Your task to perform on an android device: set the stopwatch Image 0: 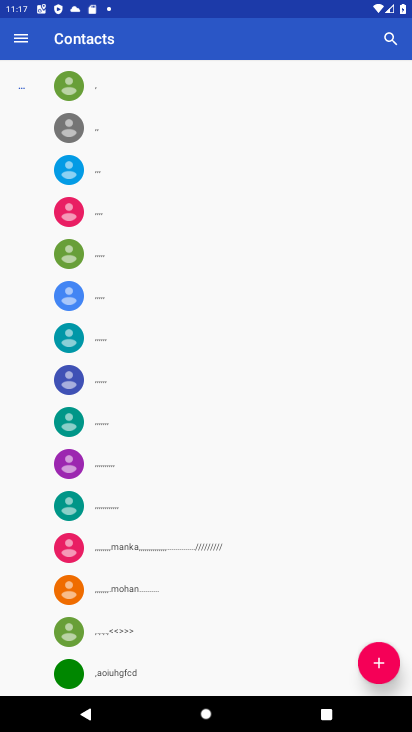
Step 0: press home button
Your task to perform on an android device: set the stopwatch Image 1: 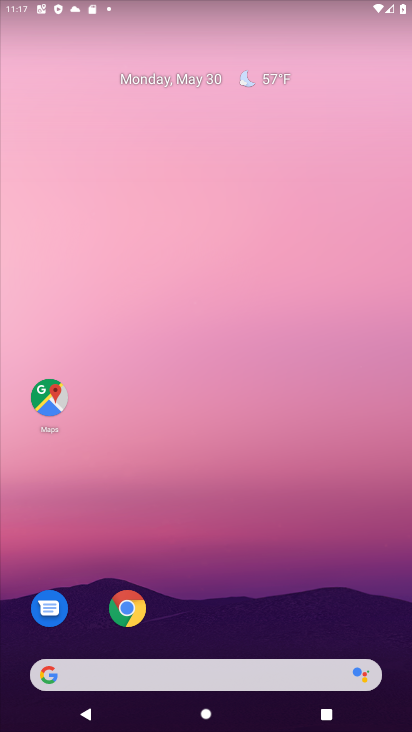
Step 1: drag from (266, 272) to (267, 3)
Your task to perform on an android device: set the stopwatch Image 2: 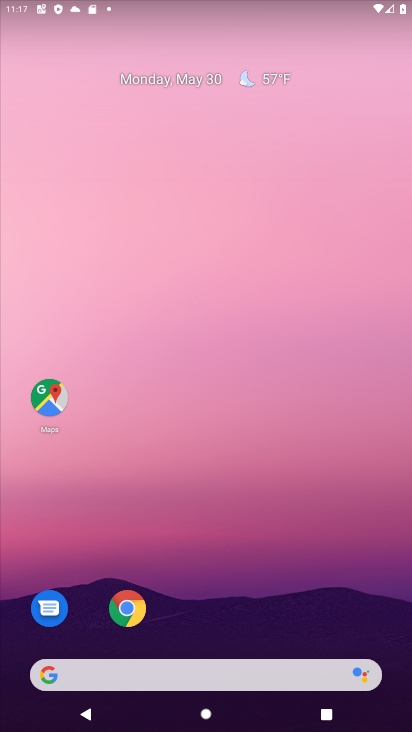
Step 2: drag from (226, 536) to (238, 1)
Your task to perform on an android device: set the stopwatch Image 3: 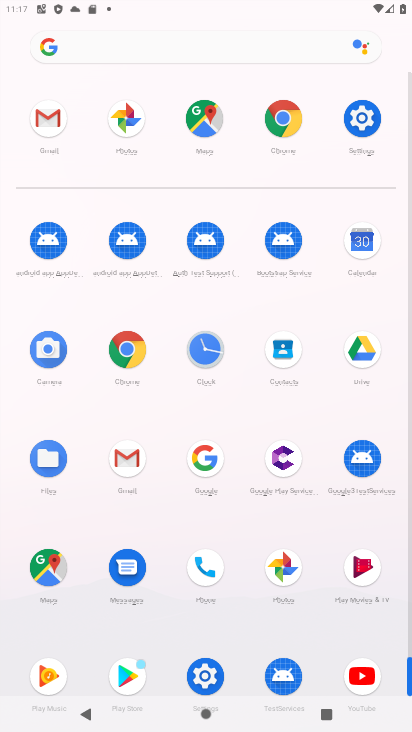
Step 3: click (204, 343)
Your task to perform on an android device: set the stopwatch Image 4: 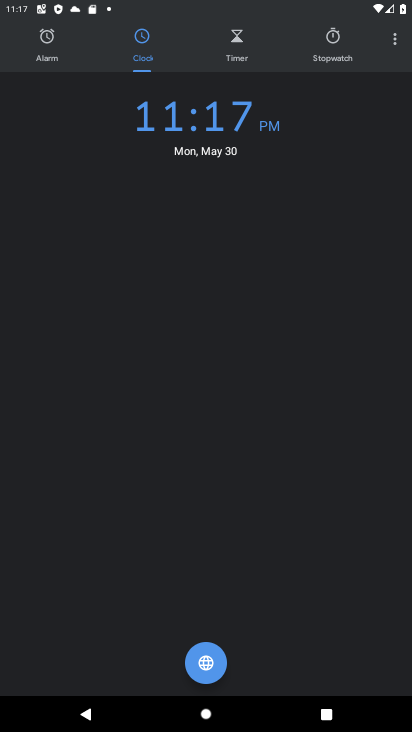
Step 4: click (334, 40)
Your task to perform on an android device: set the stopwatch Image 5: 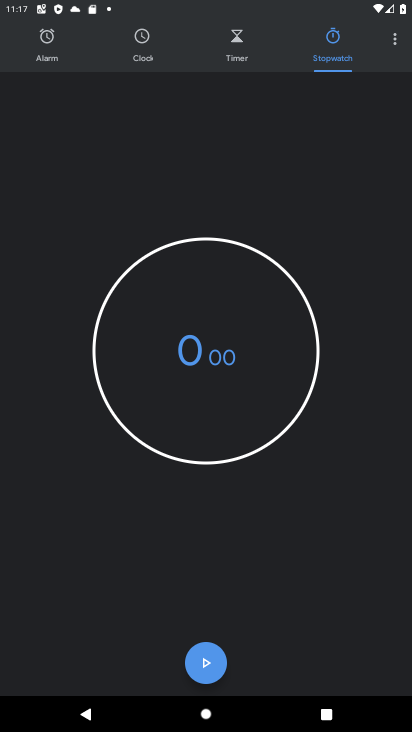
Step 5: click (208, 664)
Your task to perform on an android device: set the stopwatch Image 6: 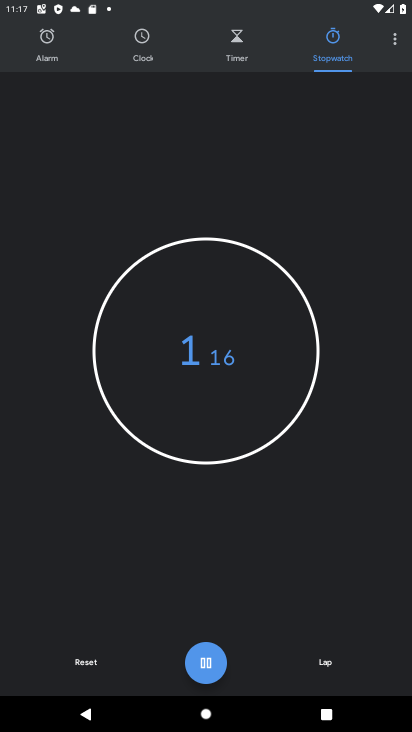
Step 6: task complete